Your task to perform on an android device: Open Youtube and go to the subscriptions tab Image 0: 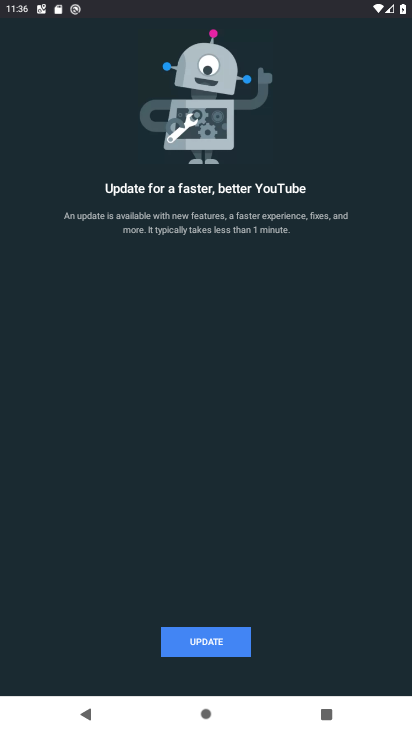
Step 0: press home button
Your task to perform on an android device: Open Youtube and go to the subscriptions tab Image 1: 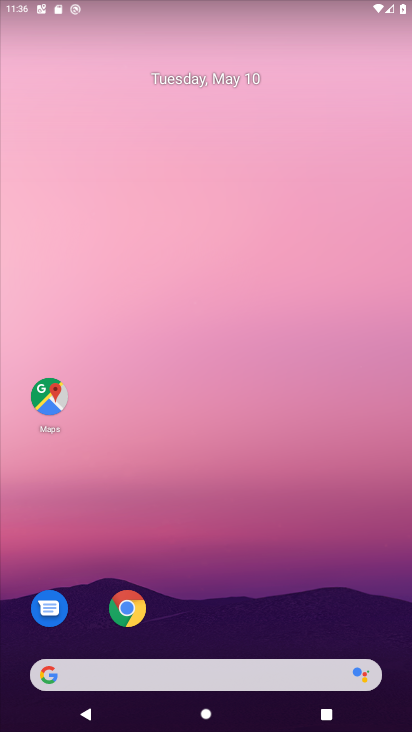
Step 1: drag from (212, 665) to (235, 227)
Your task to perform on an android device: Open Youtube and go to the subscriptions tab Image 2: 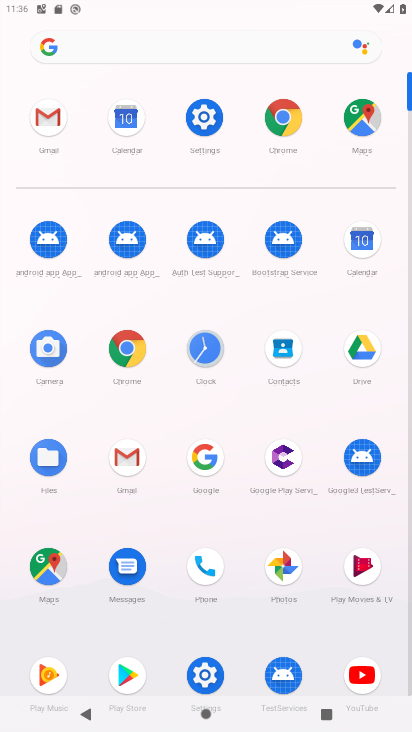
Step 2: click (366, 673)
Your task to perform on an android device: Open Youtube and go to the subscriptions tab Image 3: 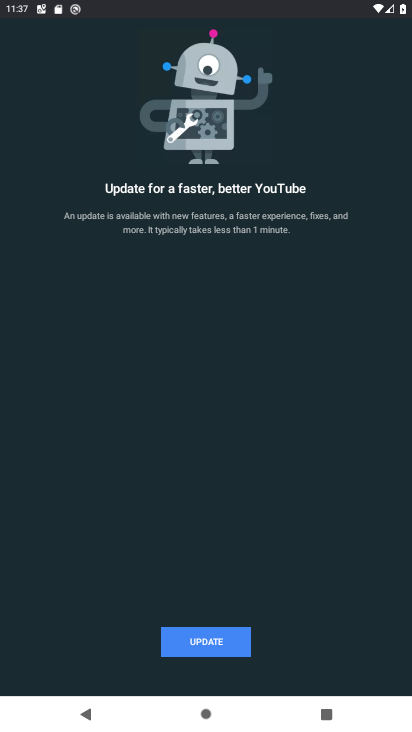
Step 3: click (207, 631)
Your task to perform on an android device: Open Youtube and go to the subscriptions tab Image 4: 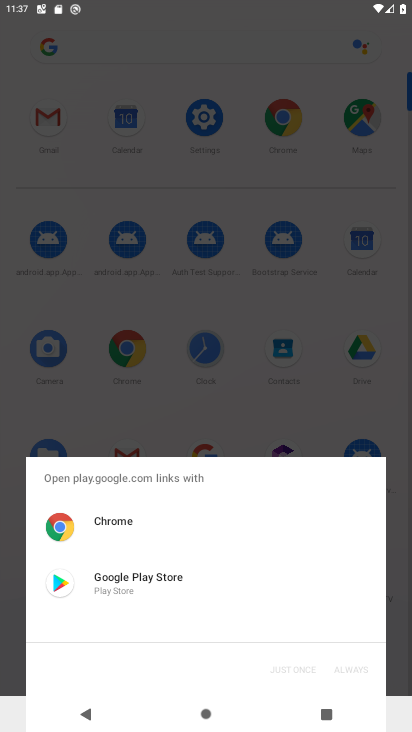
Step 4: click (132, 577)
Your task to perform on an android device: Open Youtube and go to the subscriptions tab Image 5: 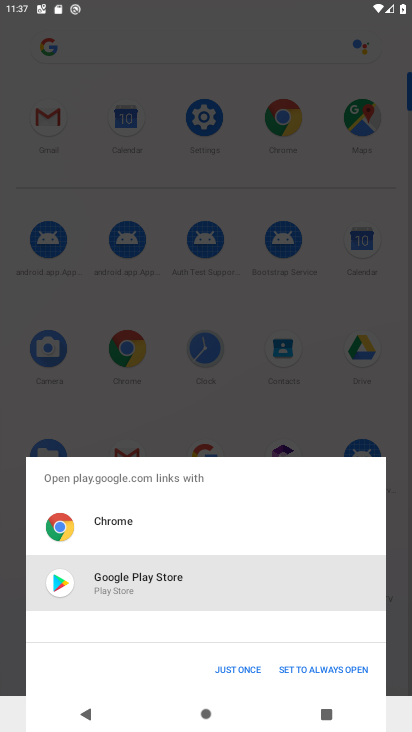
Step 5: click (239, 672)
Your task to perform on an android device: Open Youtube and go to the subscriptions tab Image 6: 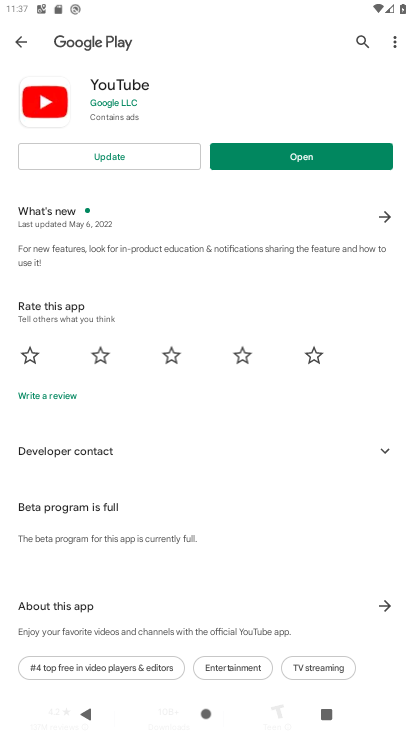
Step 6: click (141, 151)
Your task to perform on an android device: Open Youtube and go to the subscriptions tab Image 7: 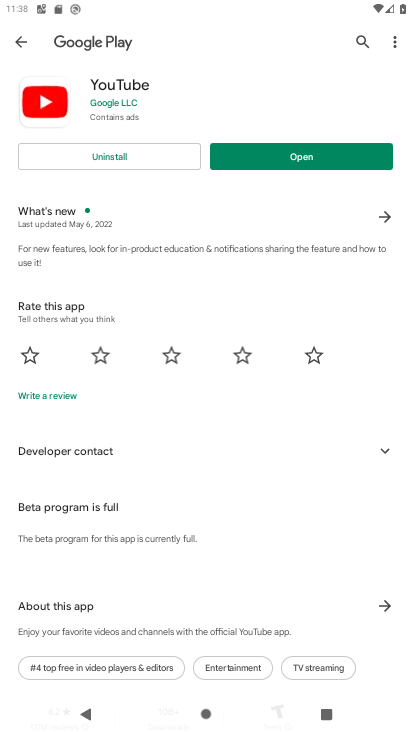
Step 7: click (351, 171)
Your task to perform on an android device: Open Youtube and go to the subscriptions tab Image 8: 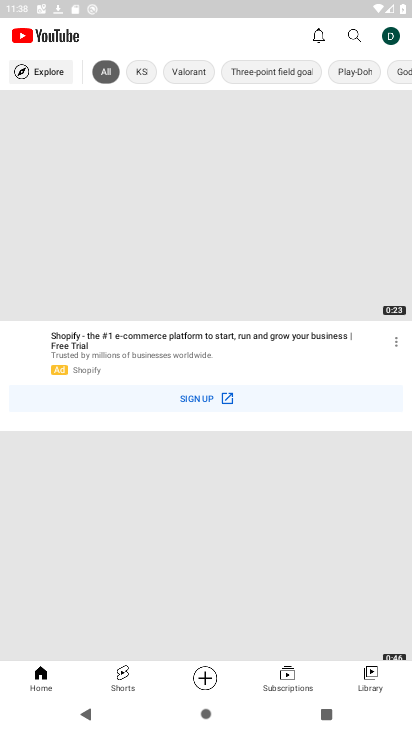
Step 8: click (291, 670)
Your task to perform on an android device: Open Youtube and go to the subscriptions tab Image 9: 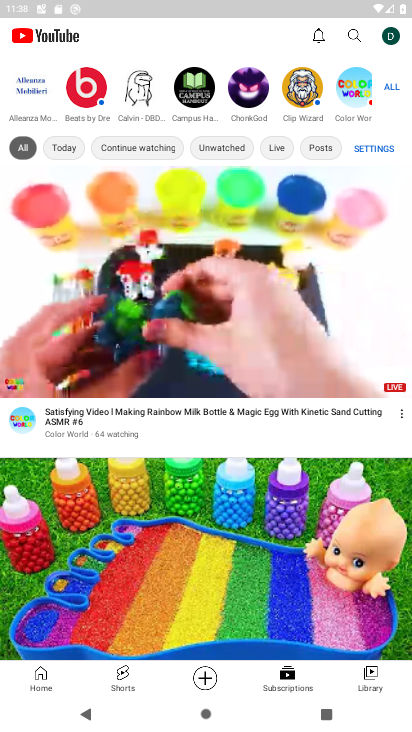
Step 9: task complete